Your task to perform on an android device: change timer sound Image 0: 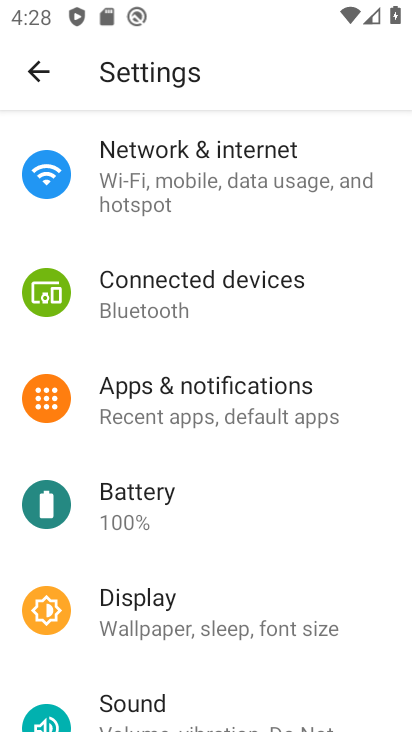
Step 0: press home button
Your task to perform on an android device: change timer sound Image 1: 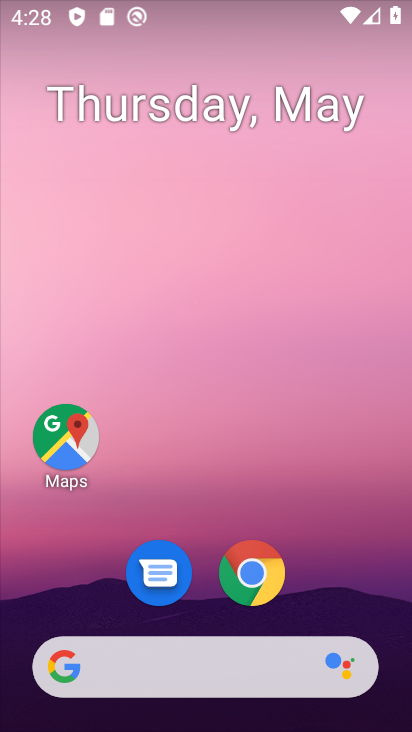
Step 1: drag from (315, 403) to (307, 87)
Your task to perform on an android device: change timer sound Image 2: 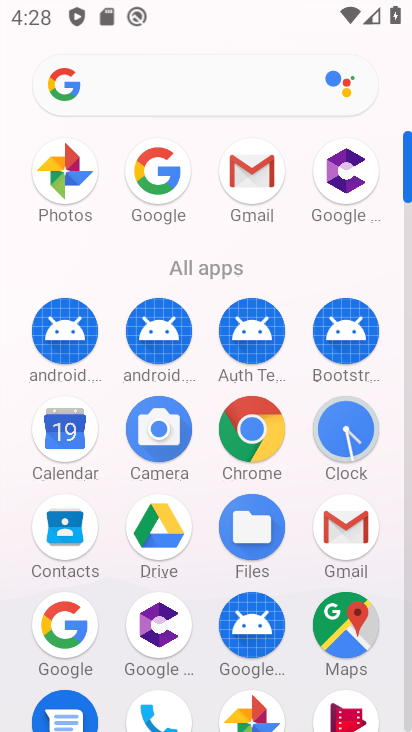
Step 2: click (345, 443)
Your task to perform on an android device: change timer sound Image 3: 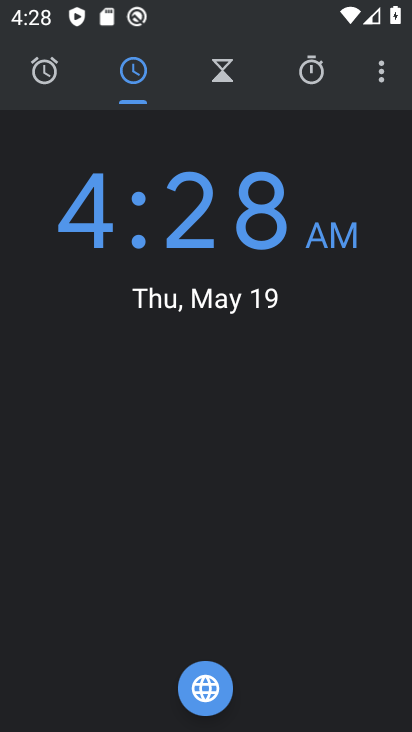
Step 3: click (383, 73)
Your task to perform on an android device: change timer sound Image 4: 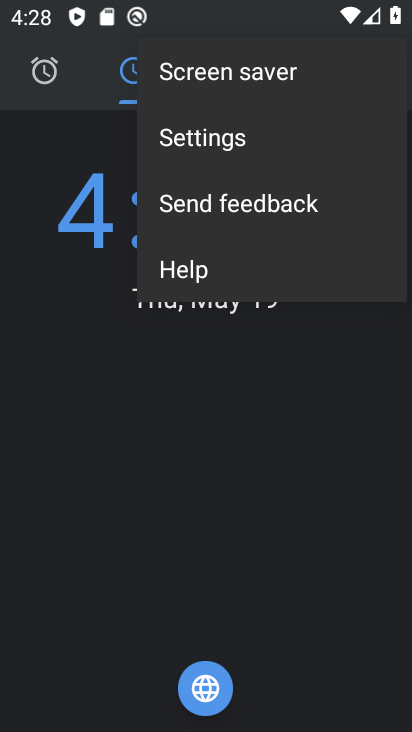
Step 4: click (241, 132)
Your task to perform on an android device: change timer sound Image 5: 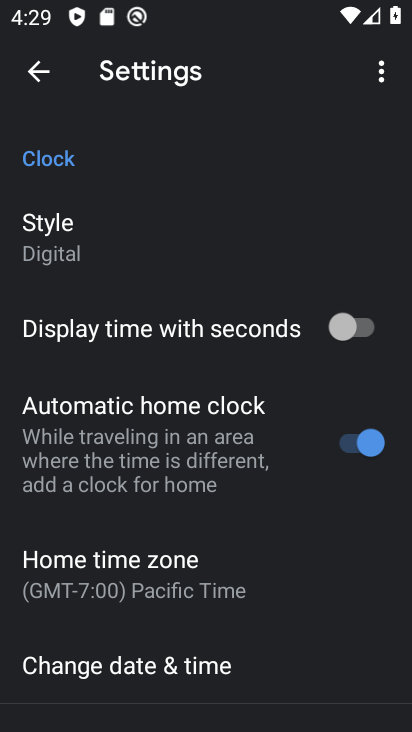
Step 5: drag from (209, 609) to (233, 273)
Your task to perform on an android device: change timer sound Image 6: 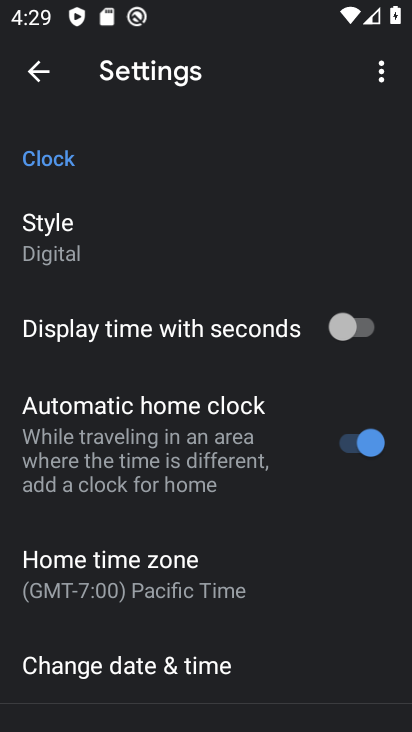
Step 6: drag from (243, 664) to (235, 232)
Your task to perform on an android device: change timer sound Image 7: 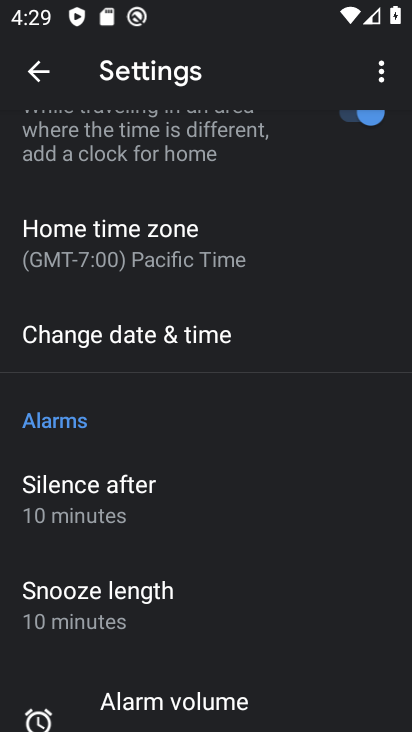
Step 7: drag from (136, 619) to (202, 225)
Your task to perform on an android device: change timer sound Image 8: 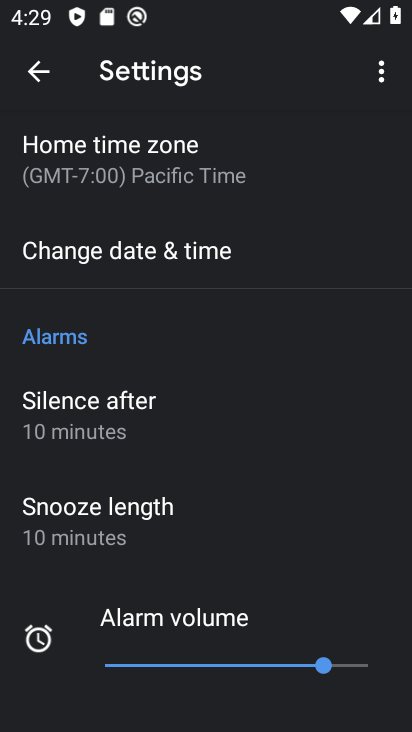
Step 8: drag from (173, 323) to (199, 239)
Your task to perform on an android device: change timer sound Image 9: 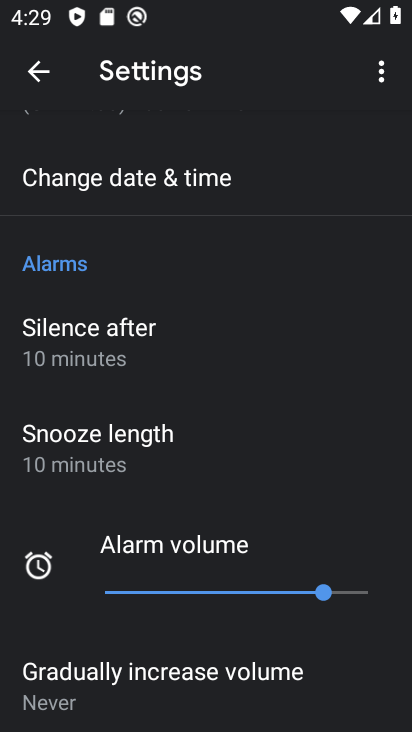
Step 9: drag from (191, 437) to (247, 173)
Your task to perform on an android device: change timer sound Image 10: 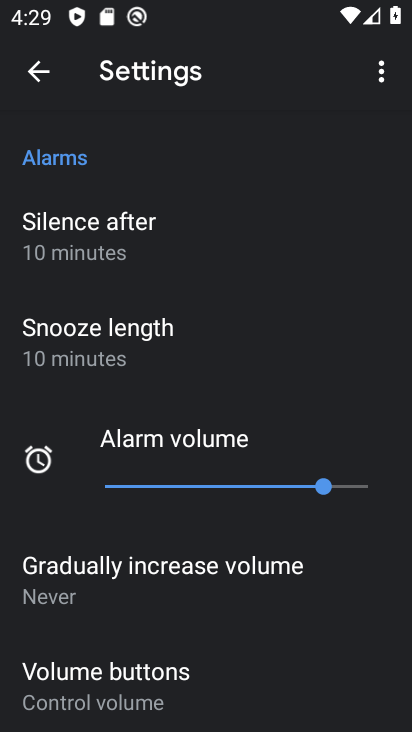
Step 10: drag from (158, 607) to (203, 269)
Your task to perform on an android device: change timer sound Image 11: 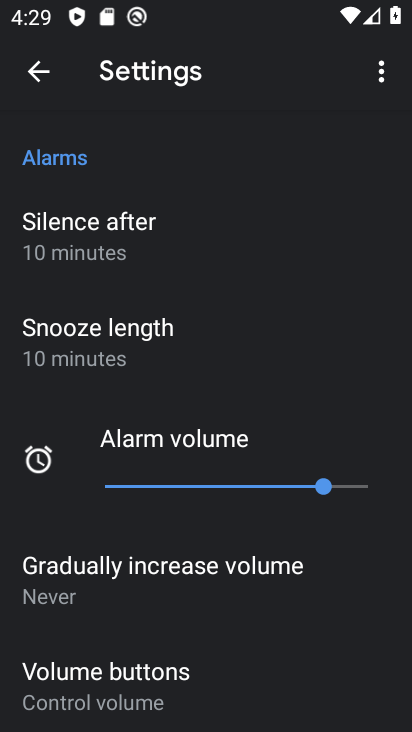
Step 11: drag from (245, 552) to (305, 208)
Your task to perform on an android device: change timer sound Image 12: 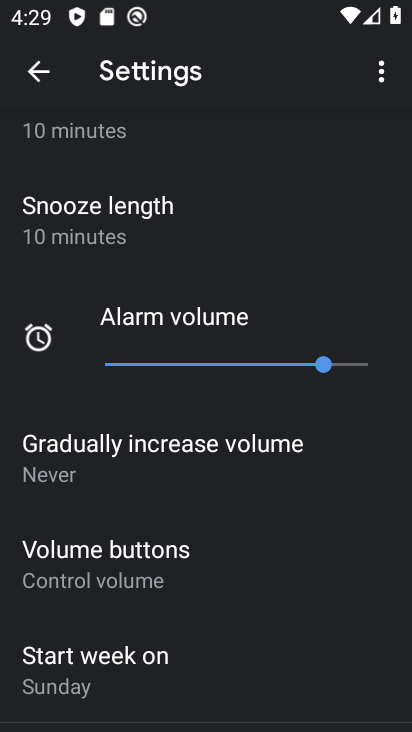
Step 12: drag from (196, 639) to (224, 269)
Your task to perform on an android device: change timer sound Image 13: 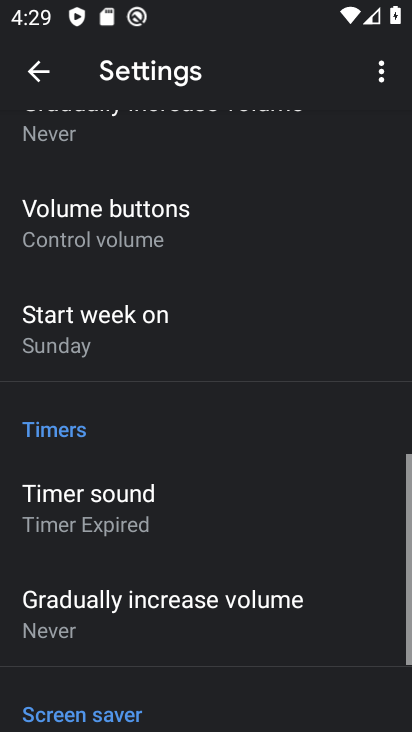
Step 13: drag from (161, 614) to (185, 402)
Your task to perform on an android device: change timer sound Image 14: 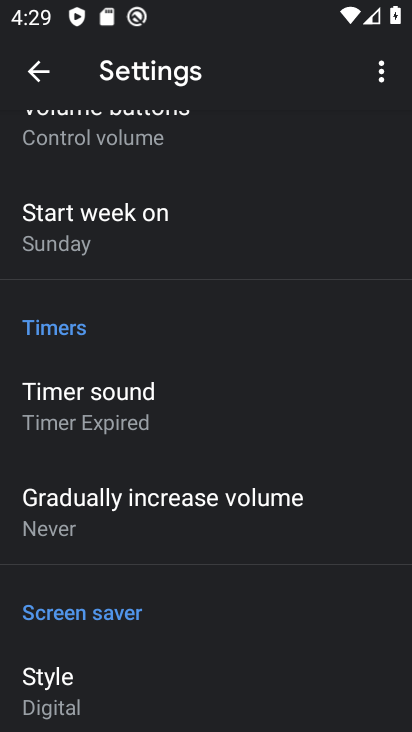
Step 14: click (95, 374)
Your task to perform on an android device: change timer sound Image 15: 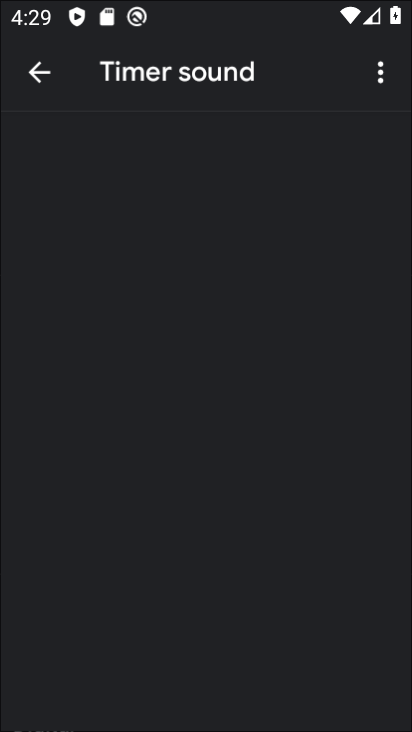
Step 15: click (104, 407)
Your task to perform on an android device: change timer sound Image 16: 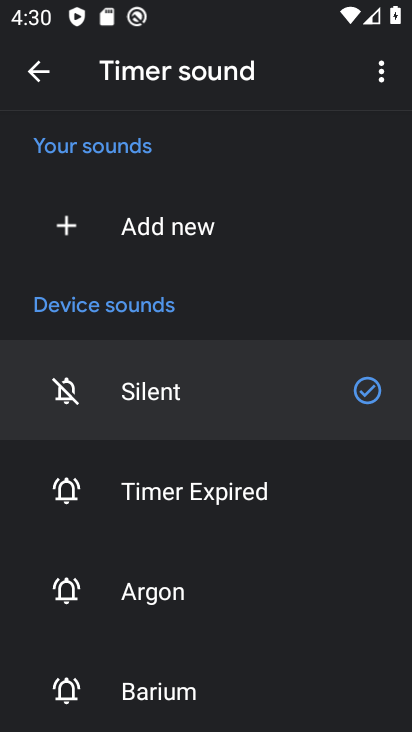
Step 16: click (136, 594)
Your task to perform on an android device: change timer sound Image 17: 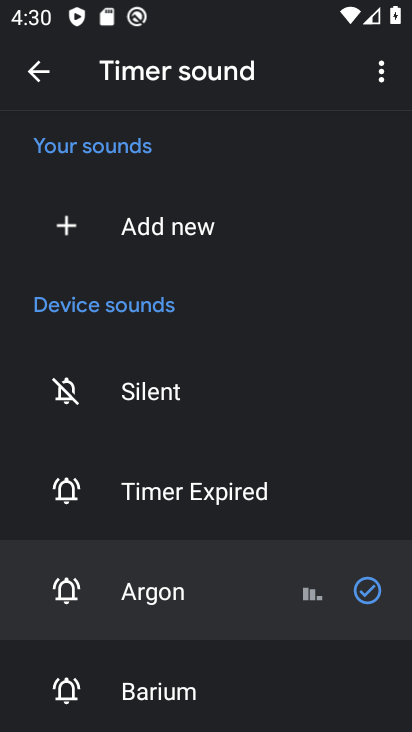
Step 17: task complete